Your task to perform on an android device: Show me the alarms in the clock app Image 0: 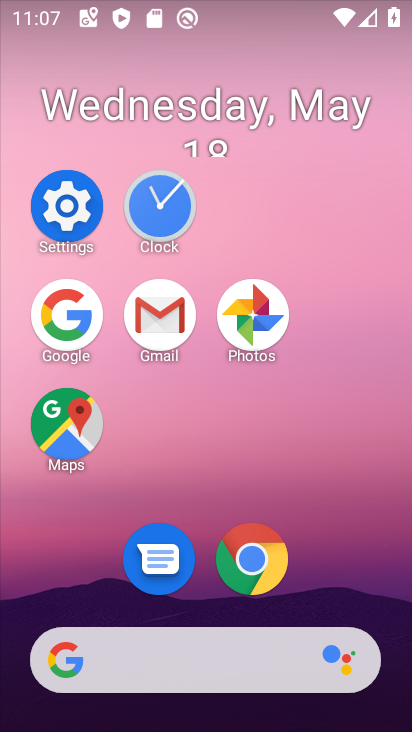
Step 0: click (164, 211)
Your task to perform on an android device: Show me the alarms in the clock app Image 1: 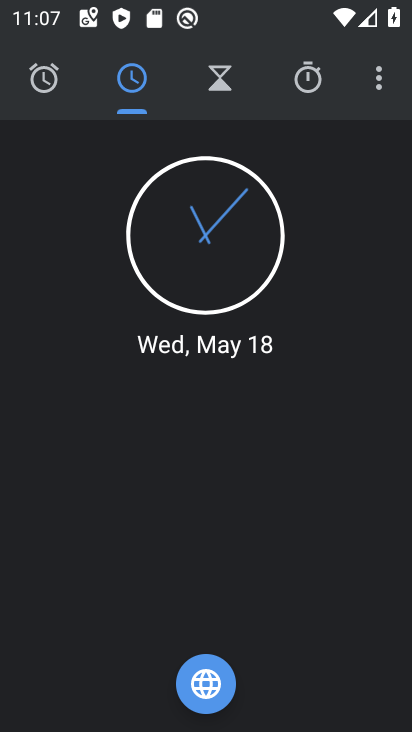
Step 1: click (19, 95)
Your task to perform on an android device: Show me the alarms in the clock app Image 2: 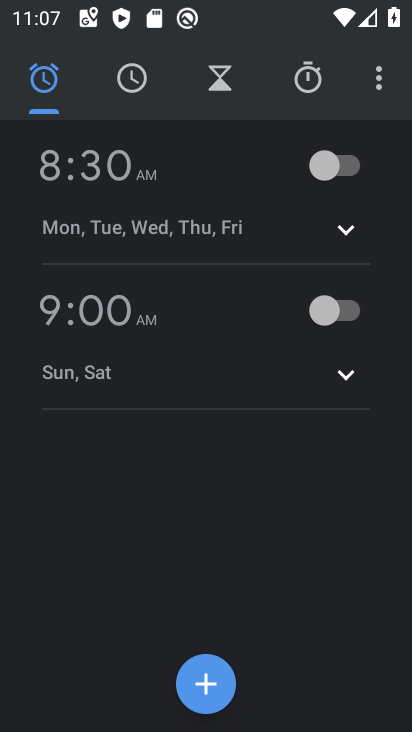
Step 2: task complete